Your task to perform on an android device: turn on javascript in the chrome app Image 0: 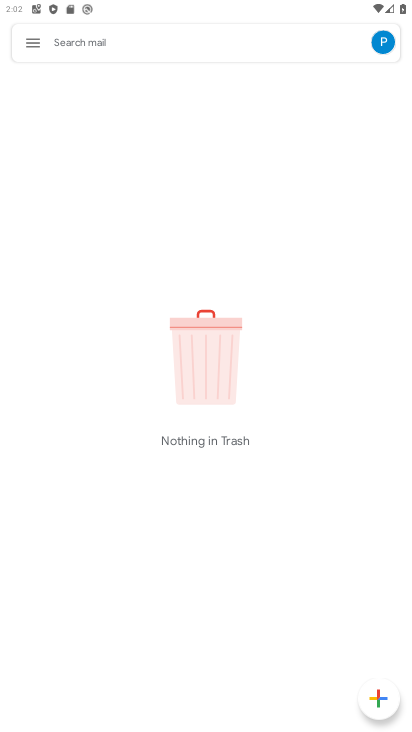
Step 0: press home button
Your task to perform on an android device: turn on javascript in the chrome app Image 1: 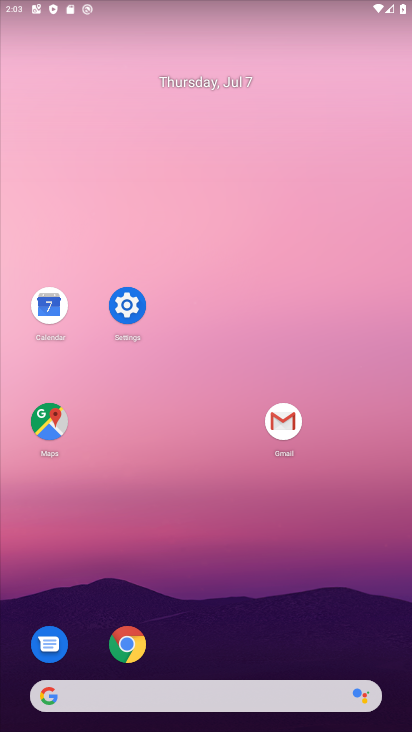
Step 1: click (122, 638)
Your task to perform on an android device: turn on javascript in the chrome app Image 2: 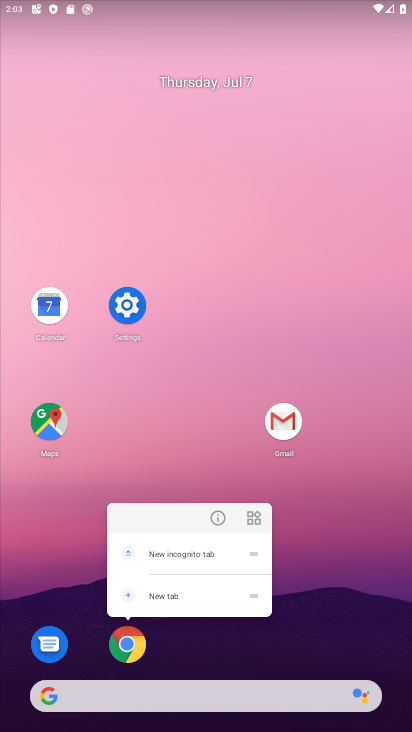
Step 2: click (119, 634)
Your task to perform on an android device: turn on javascript in the chrome app Image 3: 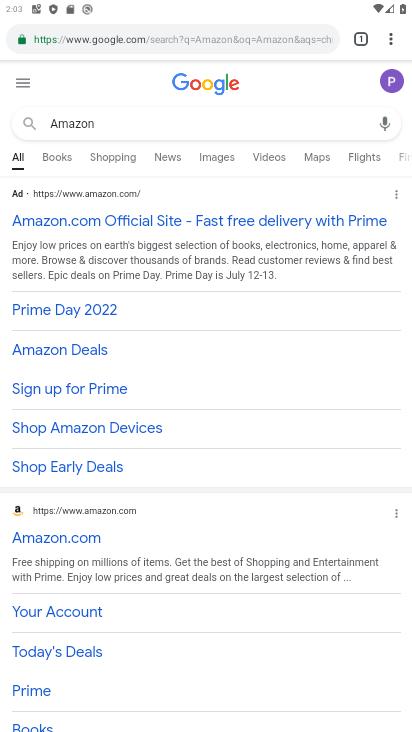
Step 3: click (386, 40)
Your task to perform on an android device: turn on javascript in the chrome app Image 4: 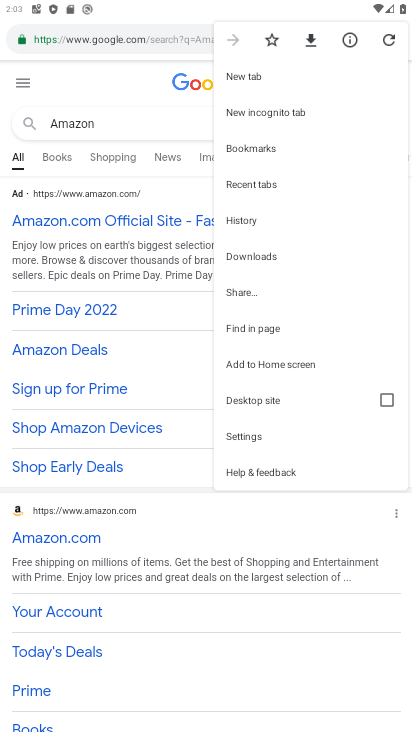
Step 4: click (230, 439)
Your task to perform on an android device: turn on javascript in the chrome app Image 5: 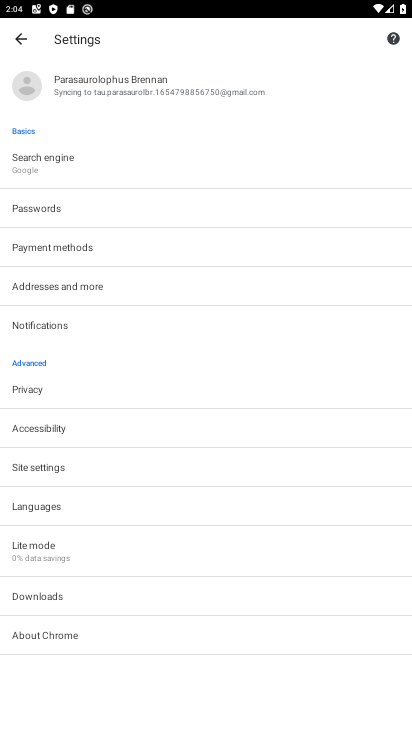
Step 5: click (26, 466)
Your task to perform on an android device: turn on javascript in the chrome app Image 6: 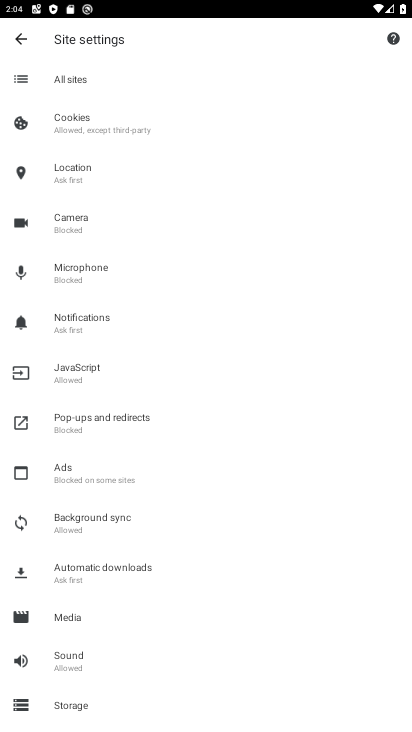
Step 6: click (70, 364)
Your task to perform on an android device: turn on javascript in the chrome app Image 7: 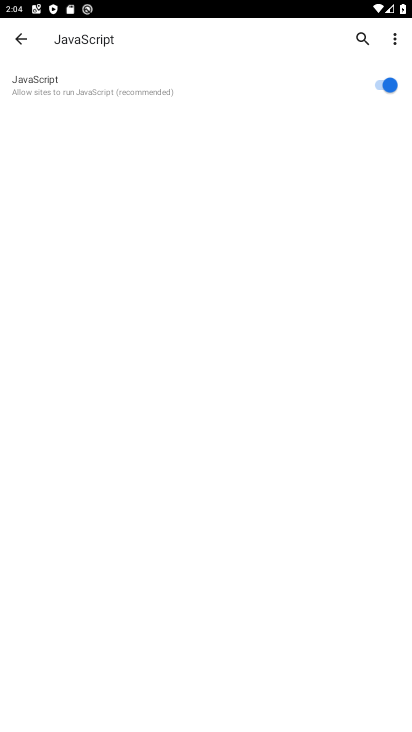
Step 7: task complete